Your task to perform on an android device: star an email in the gmail app Image 0: 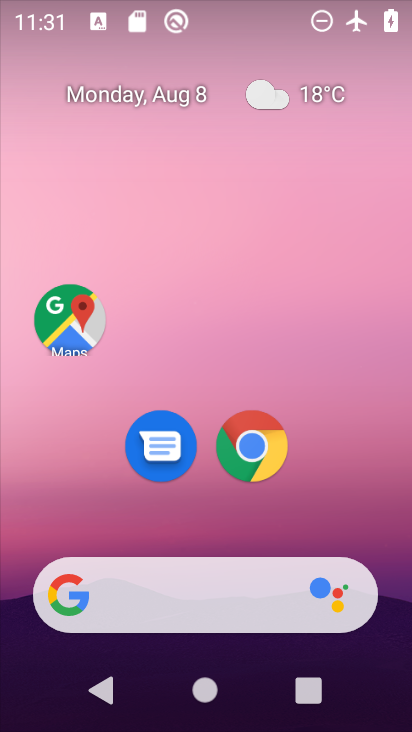
Step 0: drag from (395, 616) to (348, 150)
Your task to perform on an android device: star an email in the gmail app Image 1: 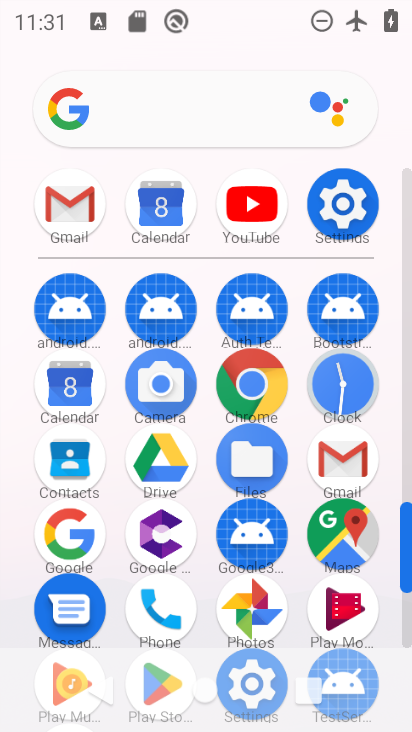
Step 1: click (342, 458)
Your task to perform on an android device: star an email in the gmail app Image 2: 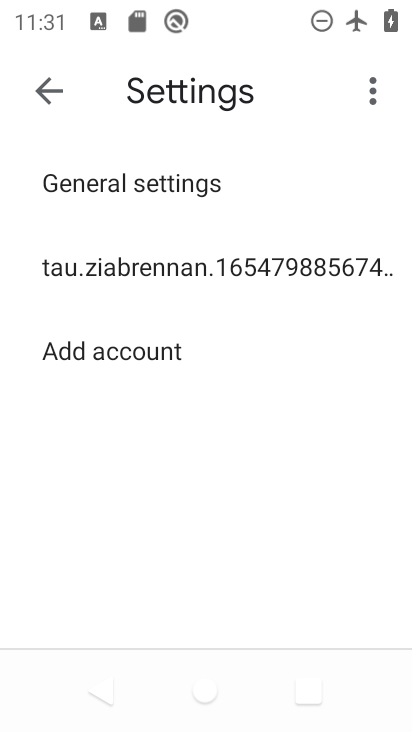
Step 2: press back button
Your task to perform on an android device: star an email in the gmail app Image 3: 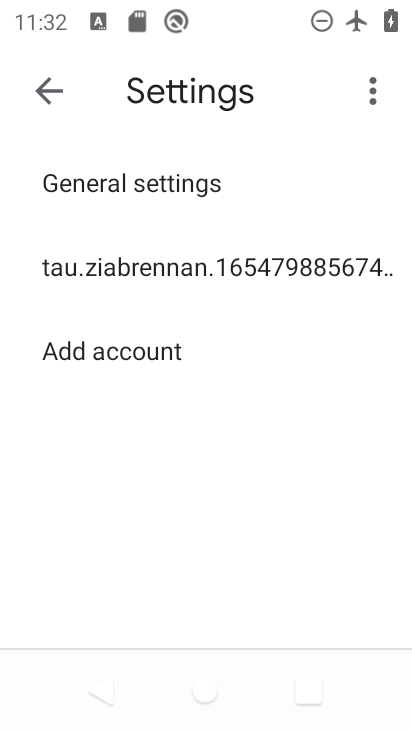
Step 3: press back button
Your task to perform on an android device: star an email in the gmail app Image 4: 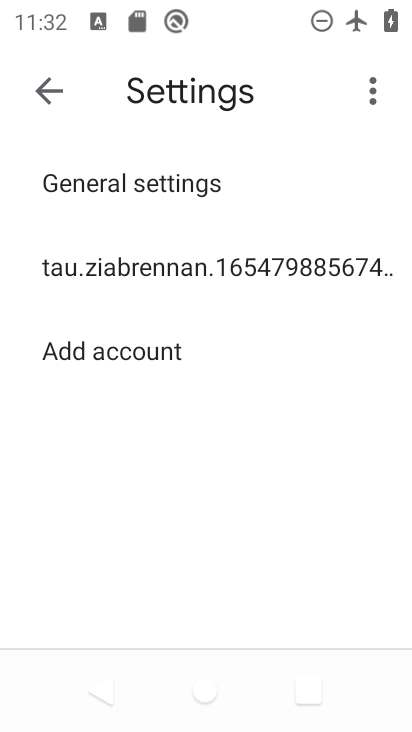
Step 4: press back button
Your task to perform on an android device: star an email in the gmail app Image 5: 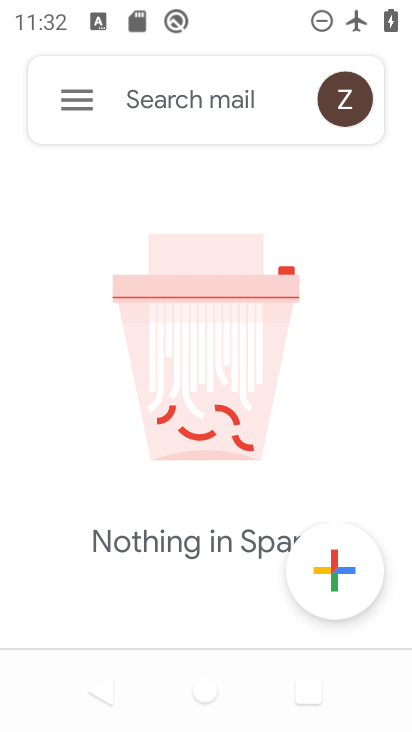
Step 5: click (73, 104)
Your task to perform on an android device: star an email in the gmail app Image 6: 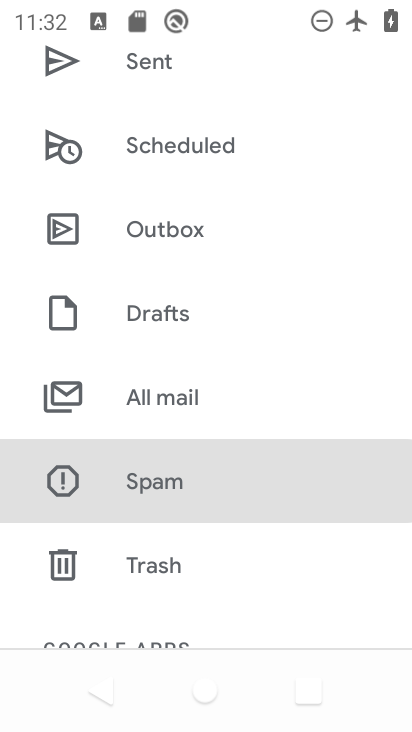
Step 6: click (164, 393)
Your task to perform on an android device: star an email in the gmail app Image 7: 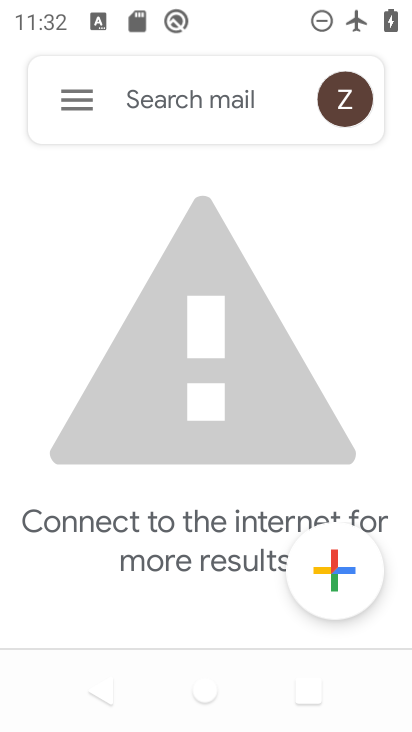
Step 7: task complete